Your task to perform on an android device: add a label to a message in the gmail app Image 0: 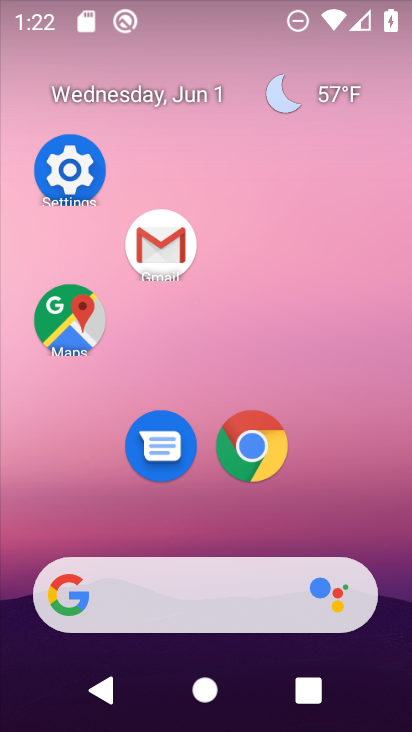
Step 0: click (162, 227)
Your task to perform on an android device: add a label to a message in the gmail app Image 1: 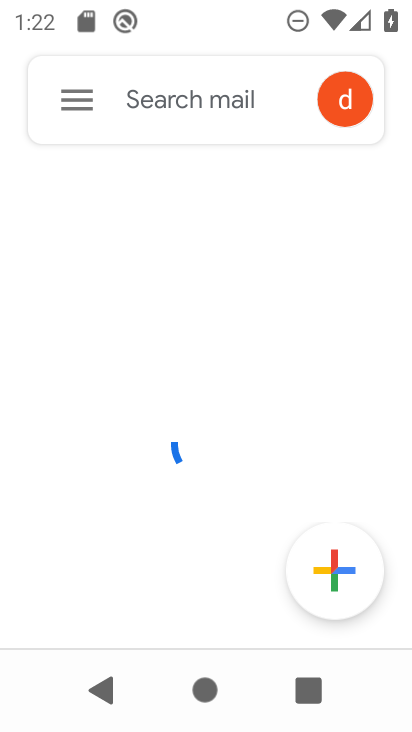
Step 1: click (64, 88)
Your task to perform on an android device: add a label to a message in the gmail app Image 2: 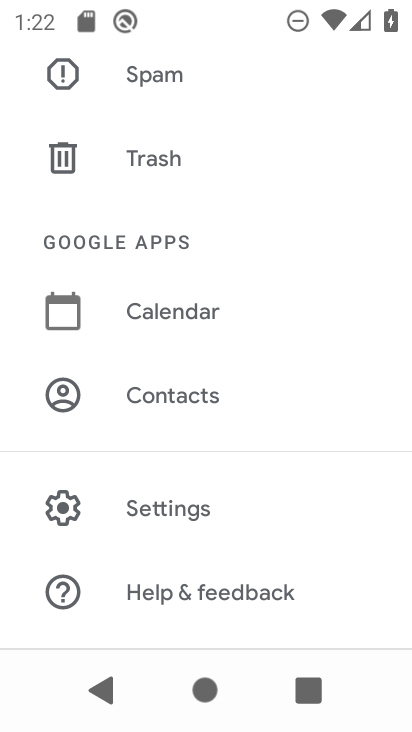
Step 2: drag from (256, 205) to (226, 562)
Your task to perform on an android device: add a label to a message in the gmail app Image 3: 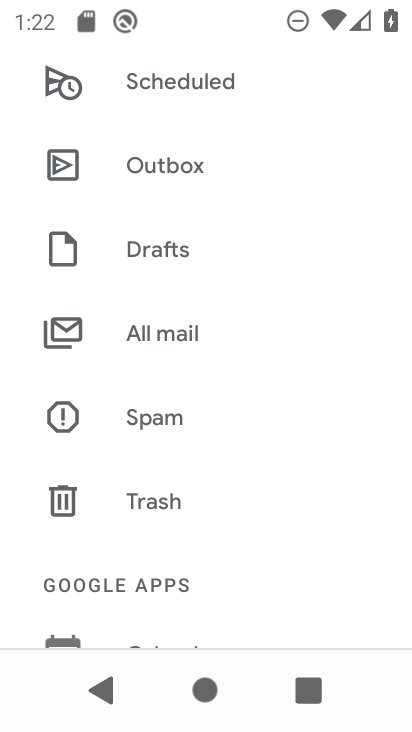
Step 3: drag from (250, 165) to (255, 333)
Your task to perform on an android device: add a label to a message in the gmail app Image 4: 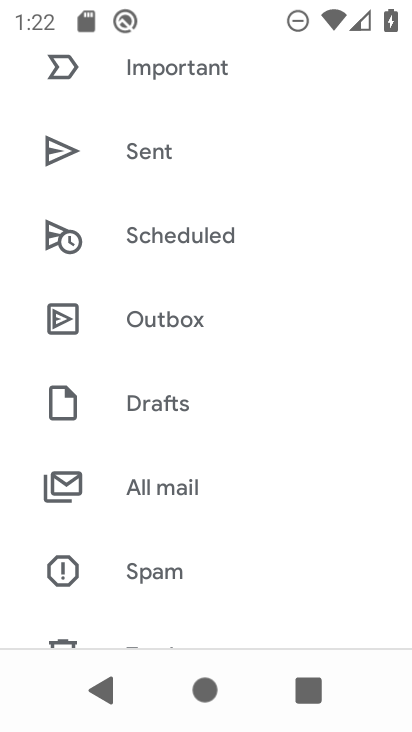
Step 4: click (192, 398)
Your task to perform on an android device: add a label to a message in the gmail app Image 5: 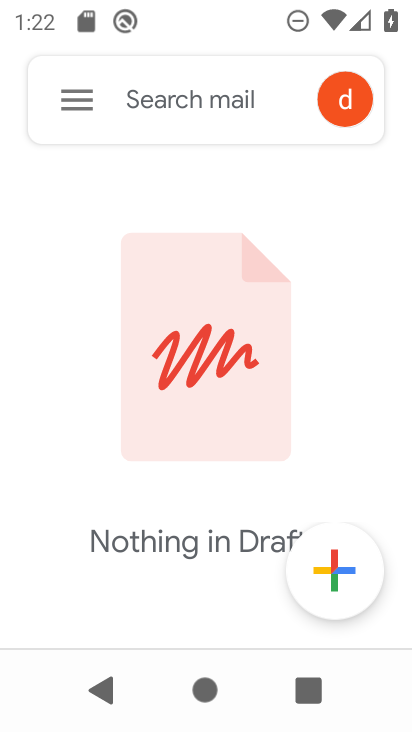
Step 5: task complete